Your task to perform on an android device: set an alarm Image 0: 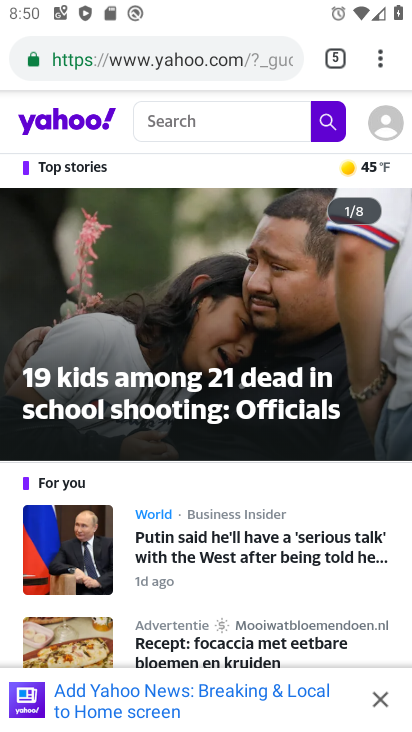
Step 0: press home button
Your task to perform on an android device: set an alarm Image 1: 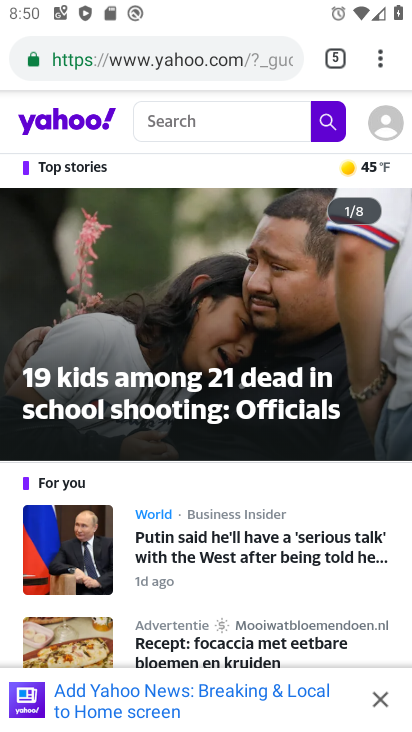
Step 1: press home button
Your task to perform on an android device: set an alarm Image 2: 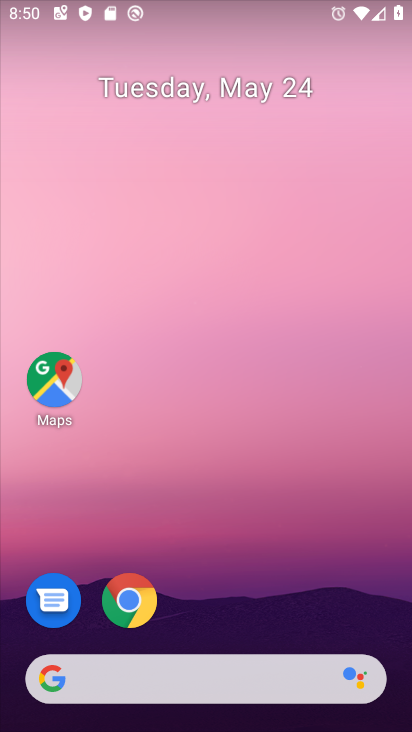
Step 2: drag from (210, 721) to (210, 202)
Your task to perform on an android device: set an alarm Image 3: 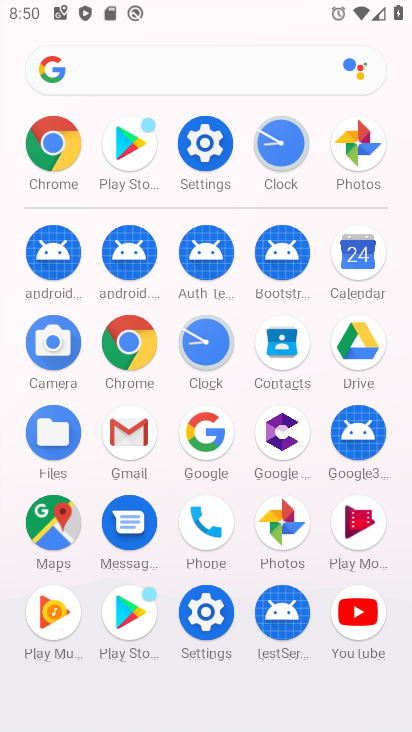
Step 3: click (198, 350)
Your task to perform on an android device: set an alarm Image 4: 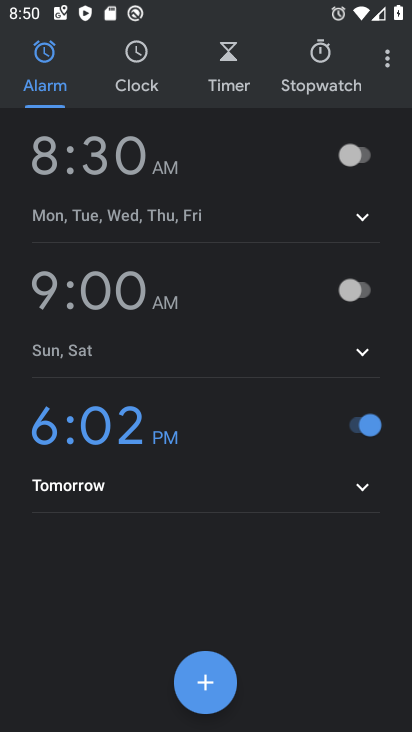
Step 4: click (205, 680)
Your task to perform on an android device: set an alarm Image 5: 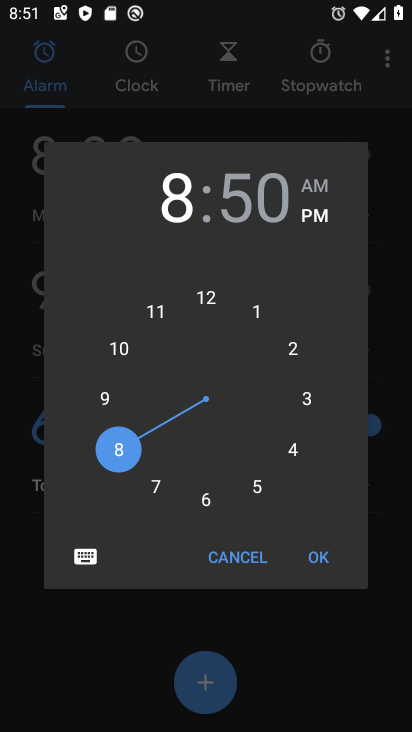
Step 5: click (203, 296)
Your task to perform on an android device: set an alarm Image 6: 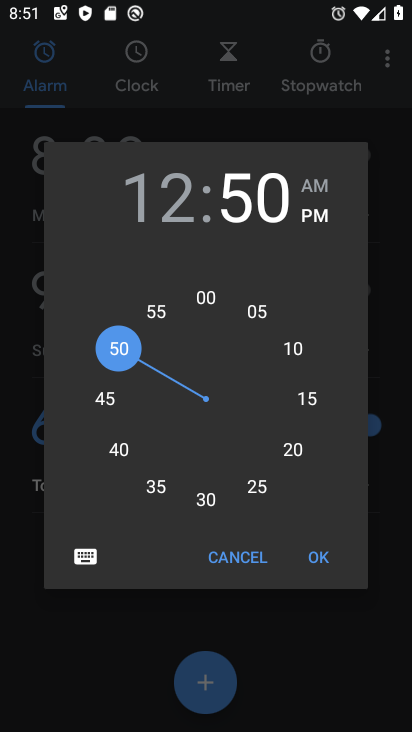
Step 6: task complete